Your task to perform on an android device: Open Amazon Image 0: 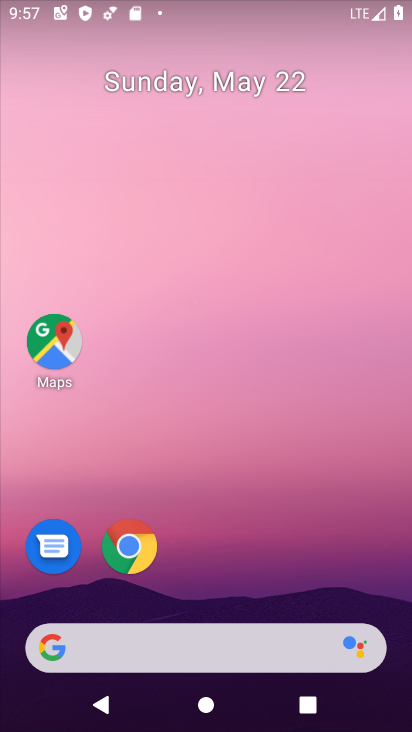
Step 0: click (355, 59)
Your task to perform on an android device: Open Amazon Image 1: 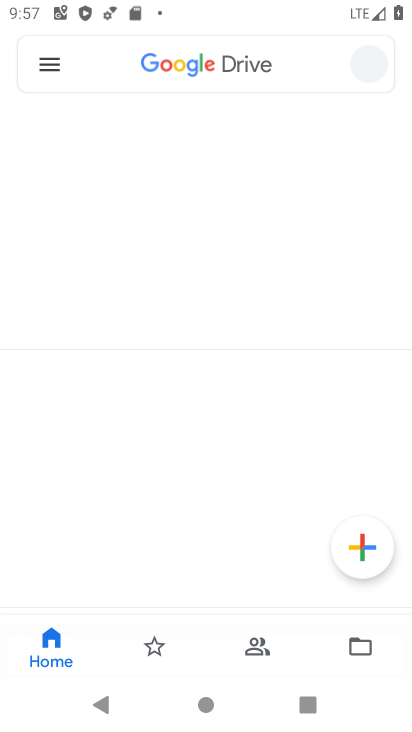
Step 1: drag from (222, 588) to (231, 6)
Your task to perform on an android device: Open Amazon Image 2: 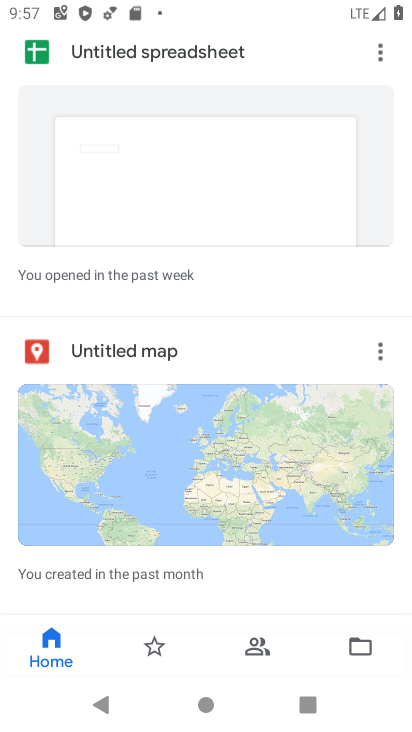
Step 2: drag from (207, 585) to (267, 169)
Your task to perform on an android device: Open Amazon Image 3: 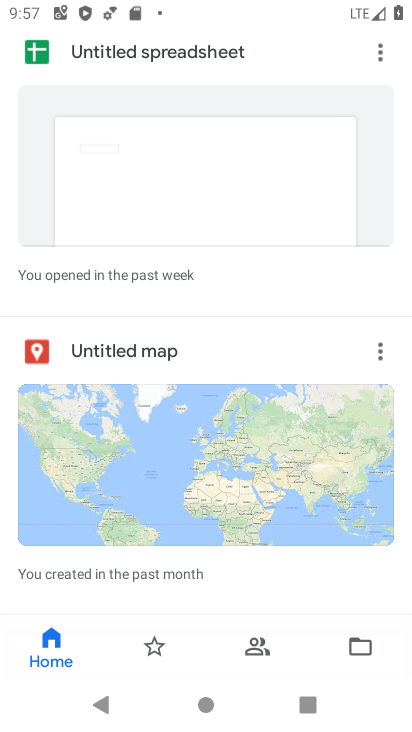
Step 3: drag from (249, 72) to (279, 537)
Your task to perform on an android device: Open Amazon Image 4: 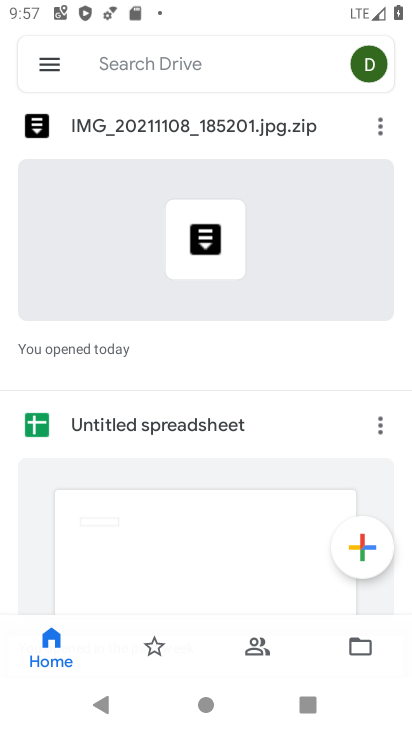
Step 4: press home button
Your task to perform on an android device: Open Amazon Image 5: 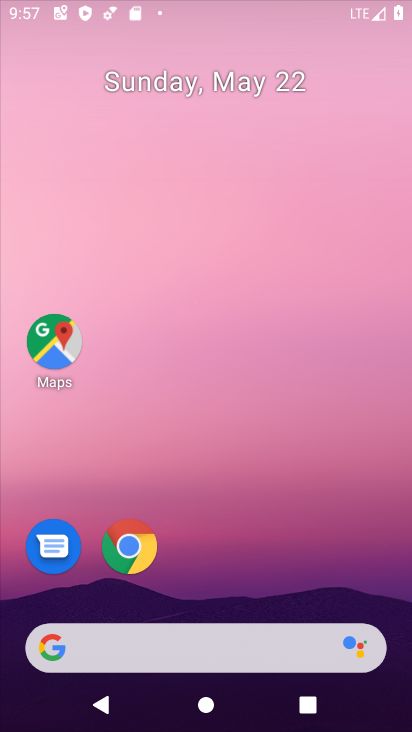
Step 5: drag from (209, 503) to (271, 86)
Your task to perform on an android device: Open Amazon Image 6: 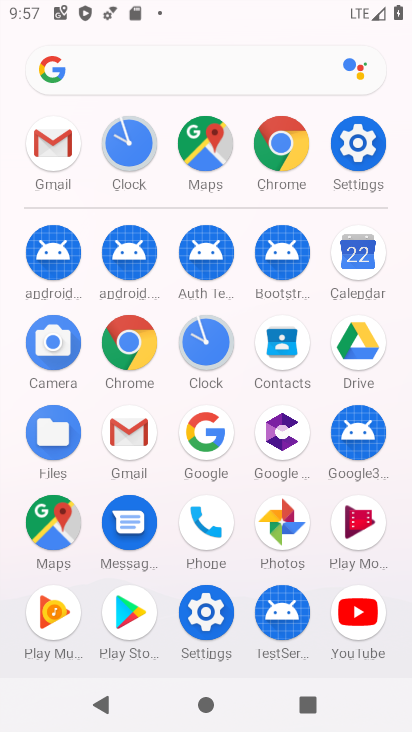
Step 6: click (125, 333)
Your task to perform on an android device: Open Amazon Image 7: 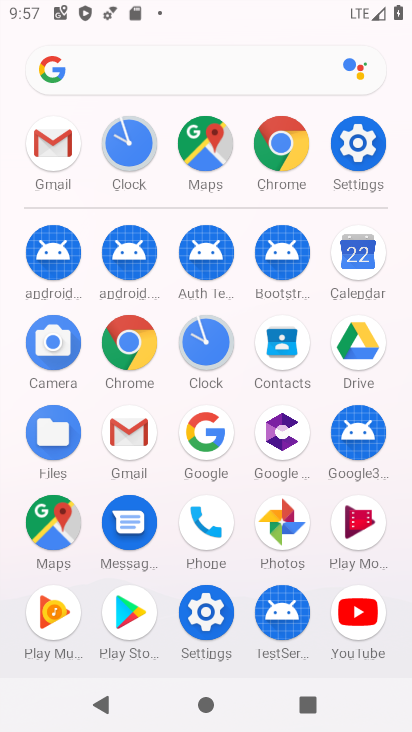
Step 7: click (125, 333)
Your task to perform on an android device: Open Amazon Image 8: 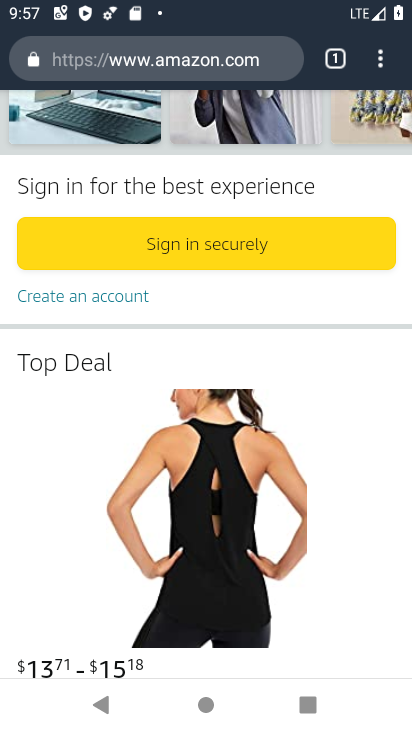
Step 8: drag from (238, 185) to (227, 642)
Your task to perform on an android device: Open Amazon Image 9: 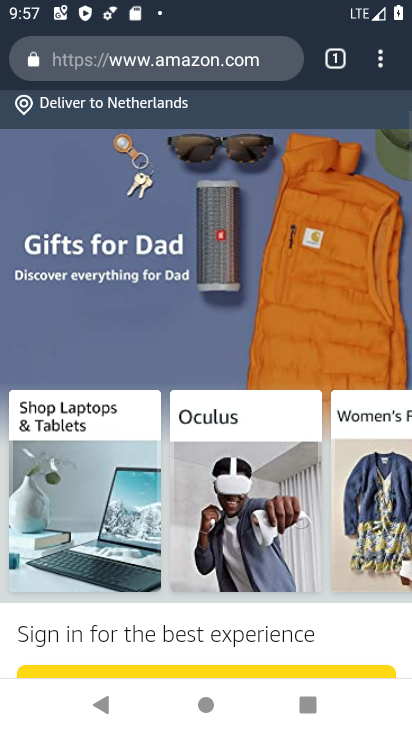
Step 9: drag from (194, 274) to (217, 680)
Your task to perform on an android device: Open Amazon Image 10: 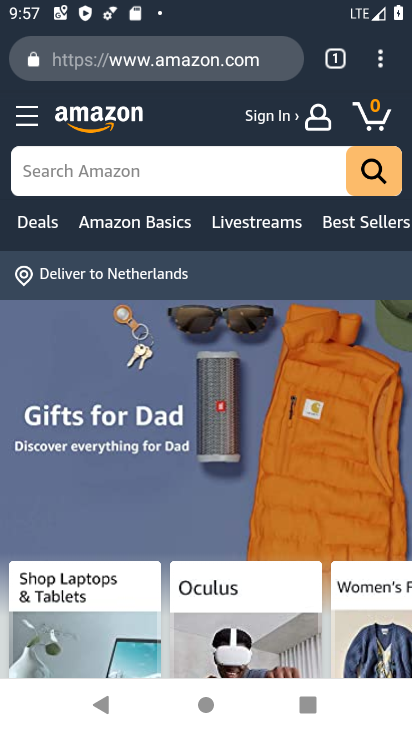
Step 10: drag from (212, 341) to (299, 94)
Your task to perform on an android device: Open Amazon Image 11: 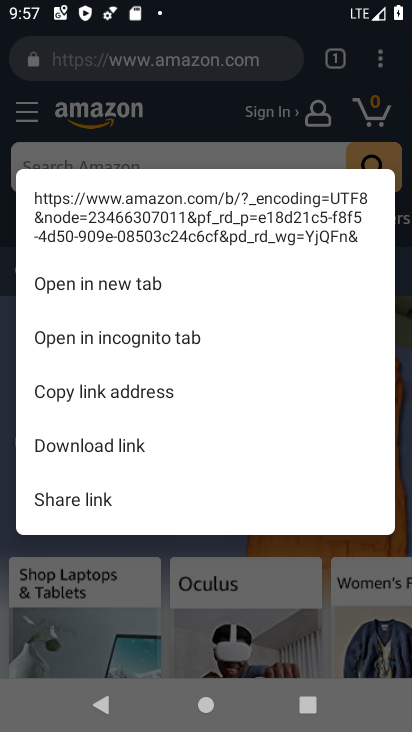
Step 11: click (141, 562)
Your task to perform on an android device: Open Amazon Image 12: 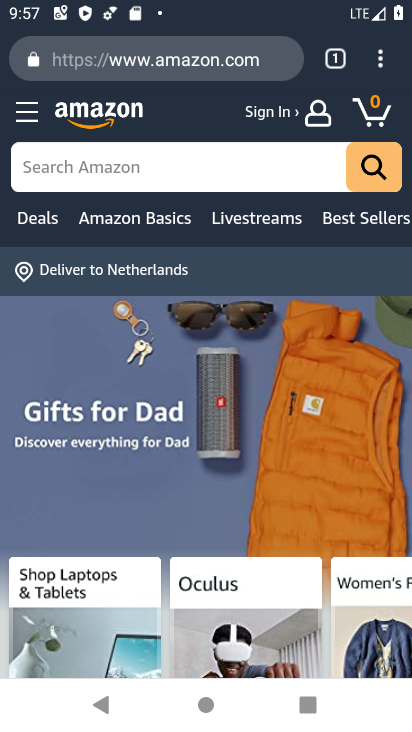
Step 12: task complete